Your task to perform on an android device: Open eBay Image 0: 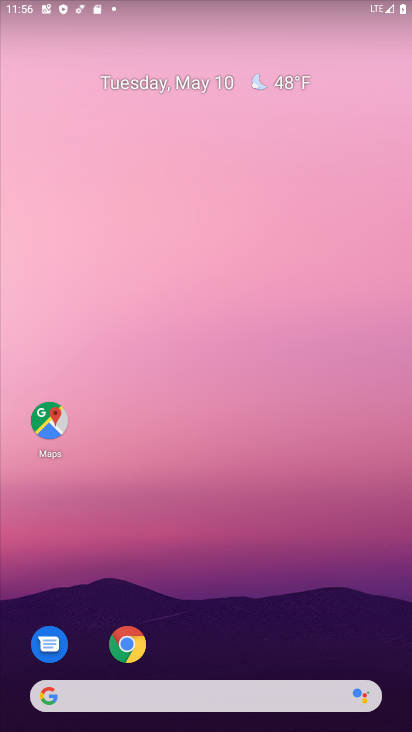
Step 0: click (126, 640)
Your task to perform on an android device: Open eBay Image 1: 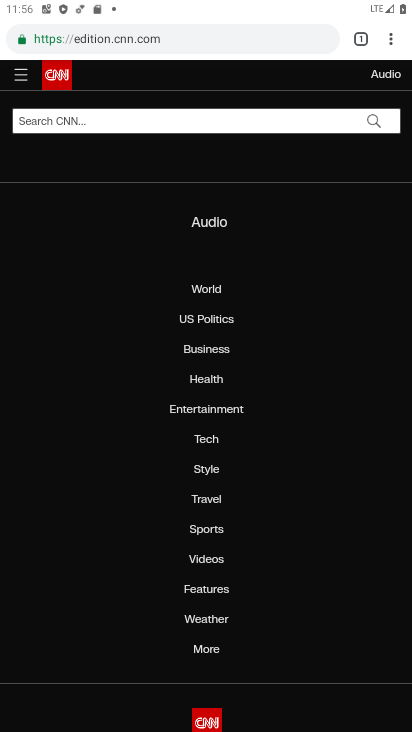
Step 1: click (161, 45)
Your task to perform on an android device: Open eBay Image 2: 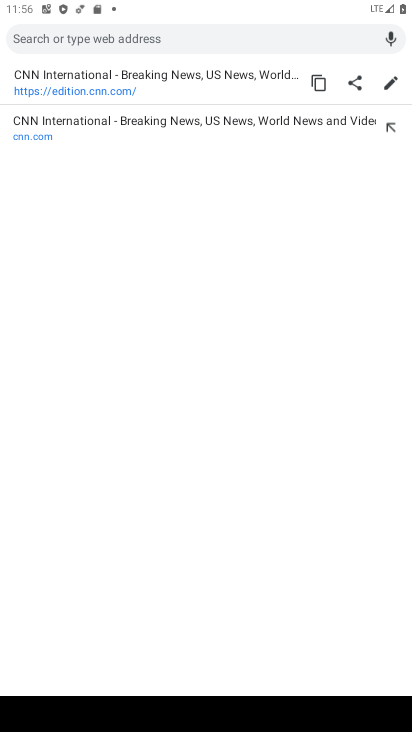
Step 2: type "eBay"
Your task to perform on an android device: Open eBay Image 3: 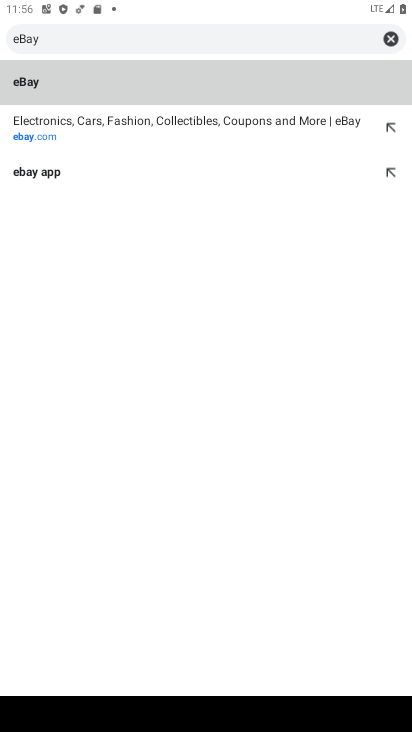
Step 3: click (71, 82)
Your task to perform on an android device: Open eBay Image 4: 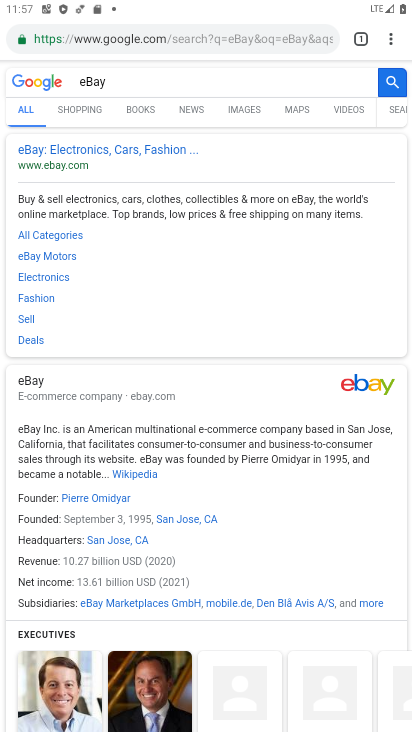
Step 4: task complete